Your task to perform on an android device: delete the emails in spam in the gmail app Image 0: 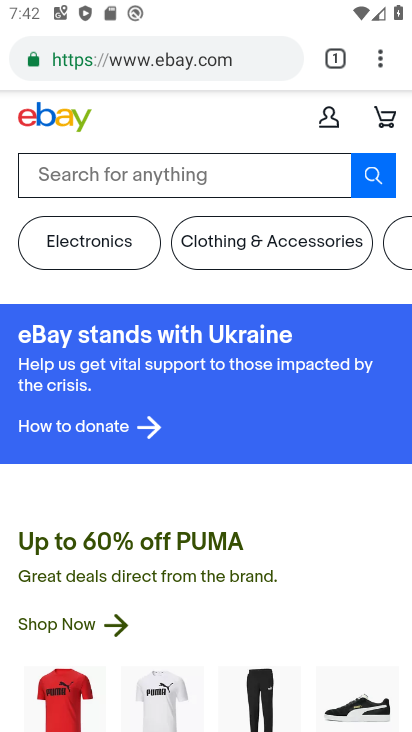
Step 0: press home button
Your task to perform on an android device: delete the emails in spam in the gmail app Image 1: 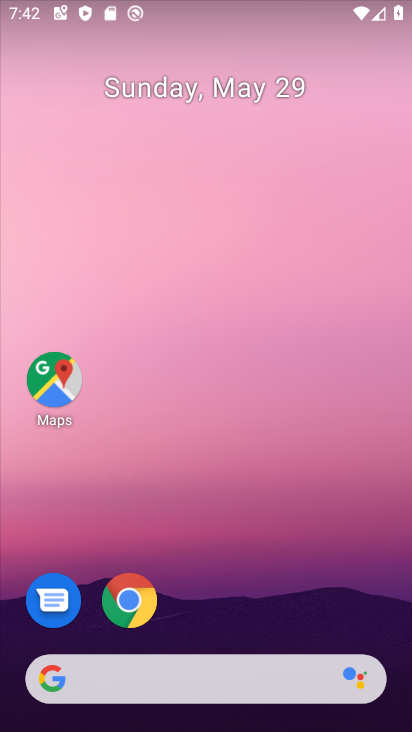
Step 1: drag from (214, 614) to (231, 252)
Your task to perform on an android device: delete the emails in spam in the gmail app Image 2: 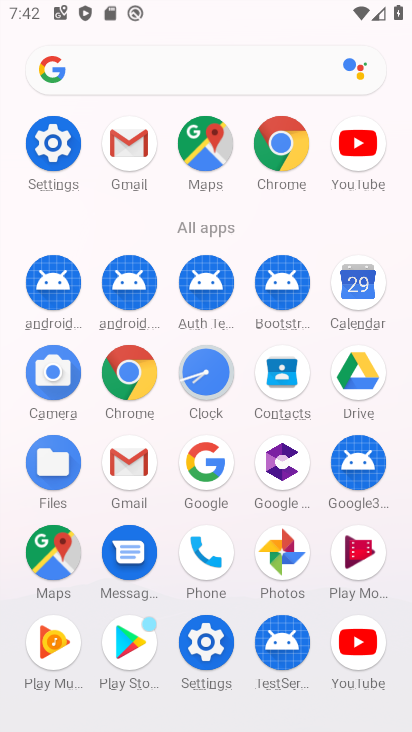
Step 2: click (125, 463)
Your task to perform on an android device: delete the emails in spam in the gmail app Image 3: 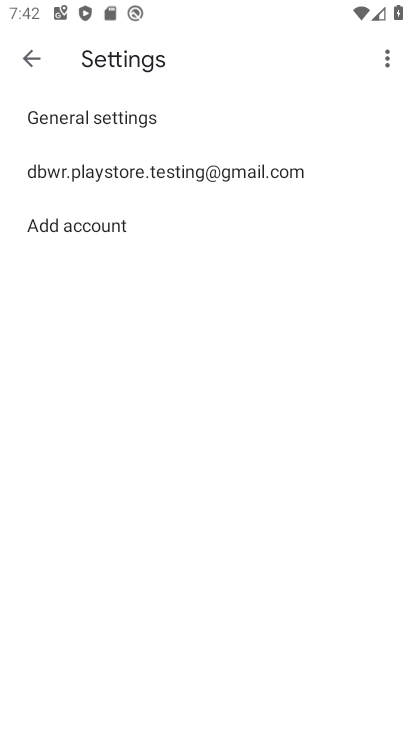
Step 3: click (24, 48)
Your task to perform on an android device: delete the emails in spam in the gmail app Image 4: 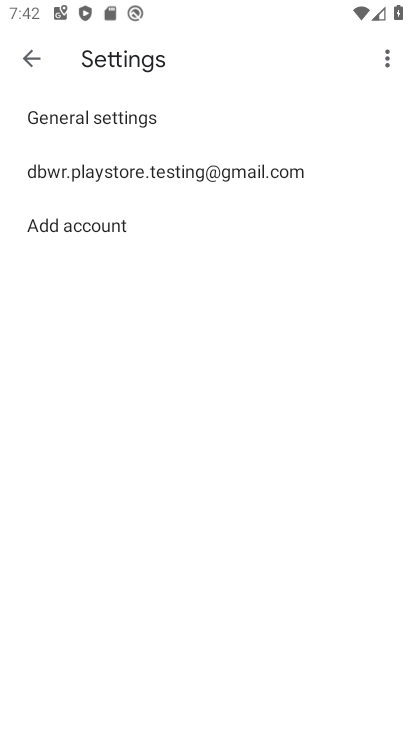
Step 4: click (27, 48)
Your task to perform on an android device: delete the emails in spam in the gmail app Image 5: 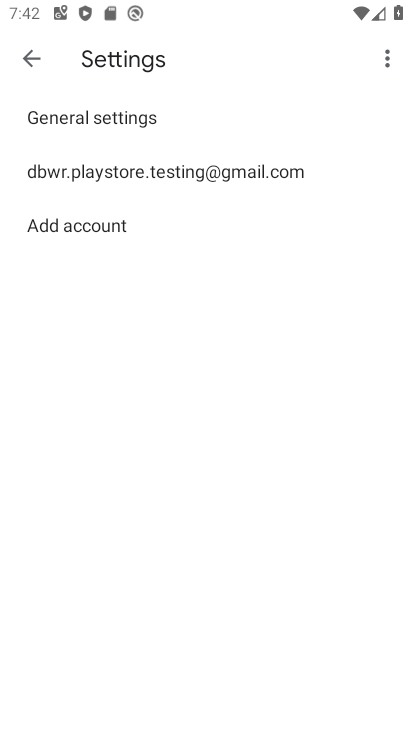
Step 5: click (33, 54)
Your task to perform on an android device: delete the emails in spam in the gmail app Image 6: 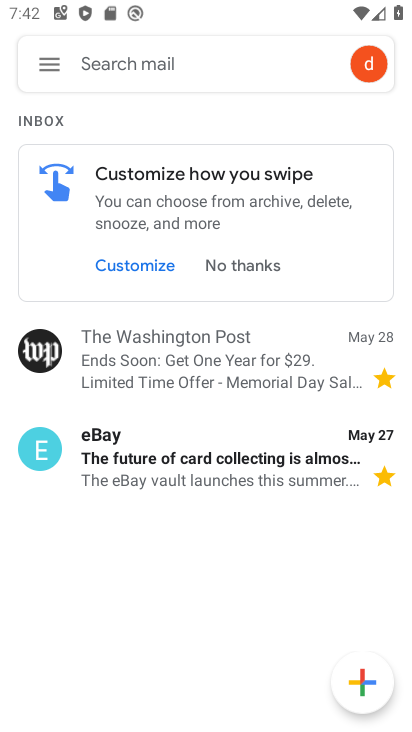
Step 6: click (40, 352)
Your task to perform on an android device: delete the emails in spam in the gmail app Image 7: 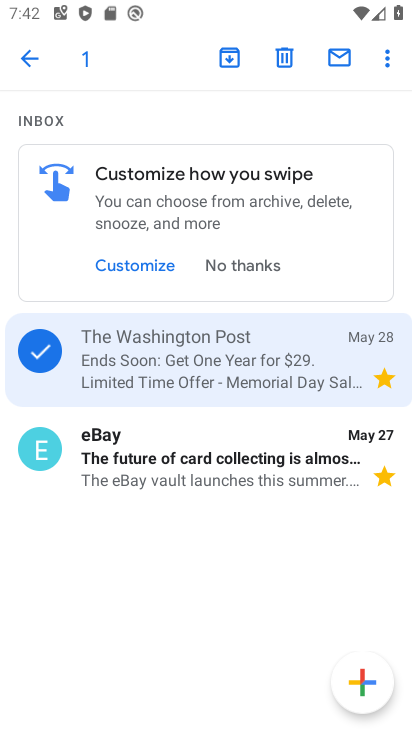
Step 7: click (290, 53)
Your task to perform on an android device: delete the emails in spam in the gmail app Image 8: 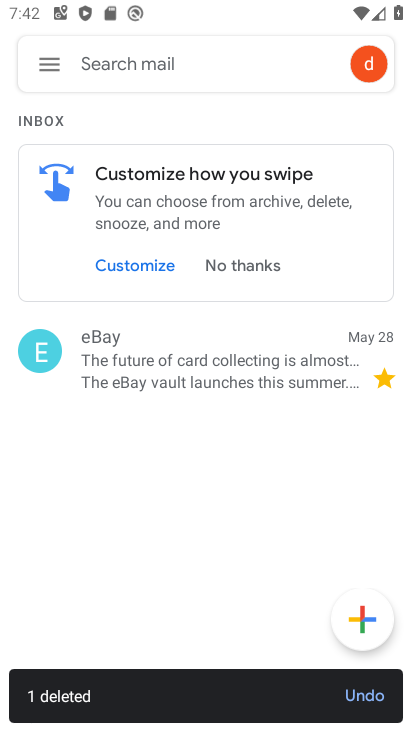
Step 8: task complete